Your task to perform on an android device: check google app version Image 0: 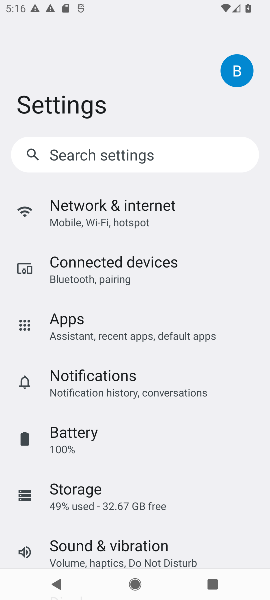
Step 0: press home button
Your task to perform on an android device: check google app version Image 1: 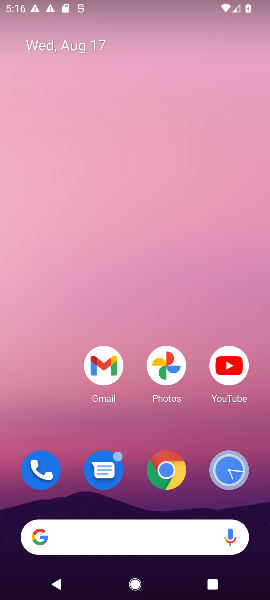
Step 1: drag from (143, 502) to (121, 22)
Your task to perform on an android device: check google app version Image 2: 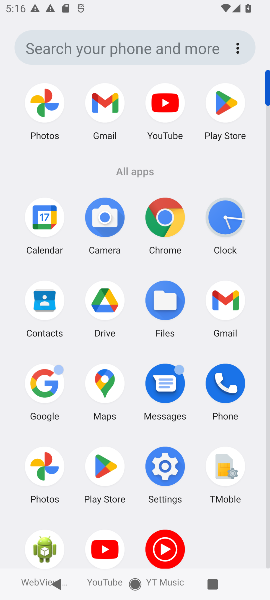
Step 2: click (49, 397)
Your task to perform on an android device: check google app version Image 3: 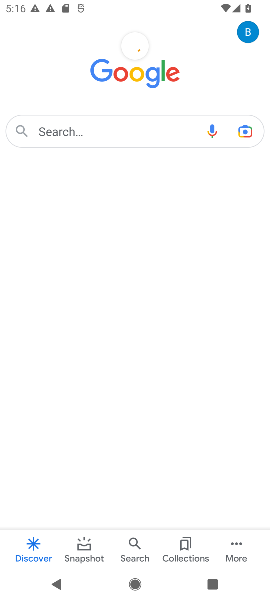
Step 3: click (236, 540)
Your task to perform on an android device: check google app version Image 4: 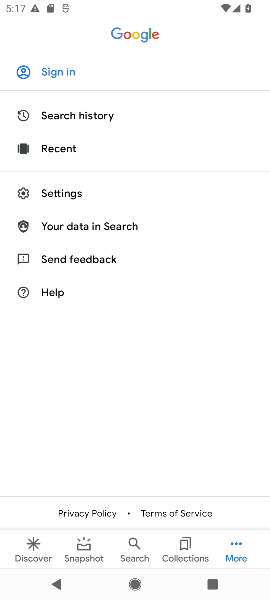
Step 4: click (65, 194)
Your task to perform on an android device: check google app version Image 5: 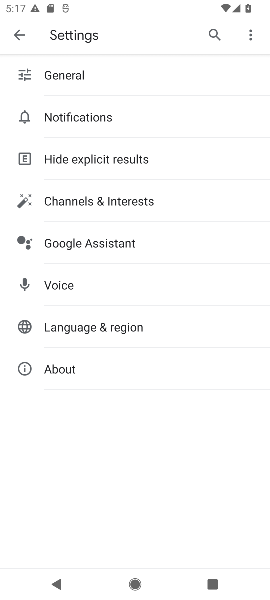
Step 5: click (79, 359)
Your task to perform on an android device: check google app version Image 6: 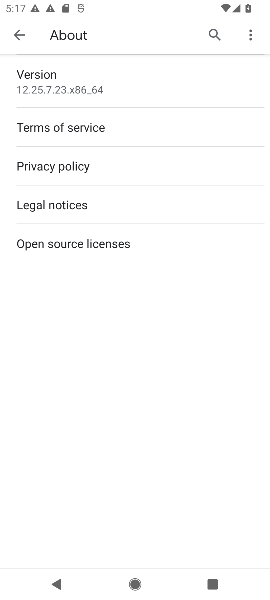
Step 6: task complete